Your task to perform on an android device: turn on improve location accuracy Image 0: 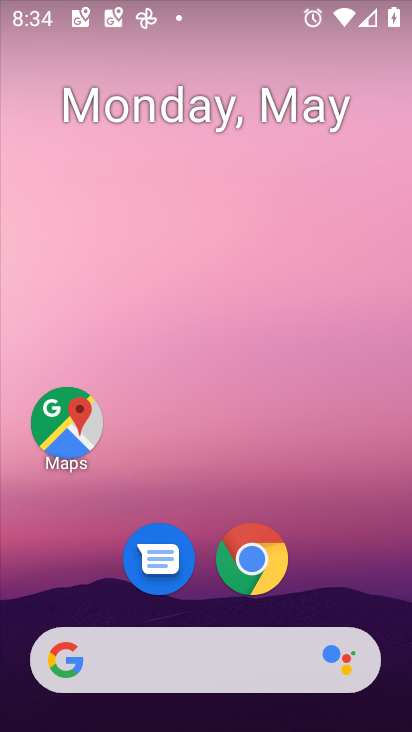
Step 0: drag from (367, 607) to (330, 90)
Your task to perform on an android device: turn on improve location accuracy Image 1: 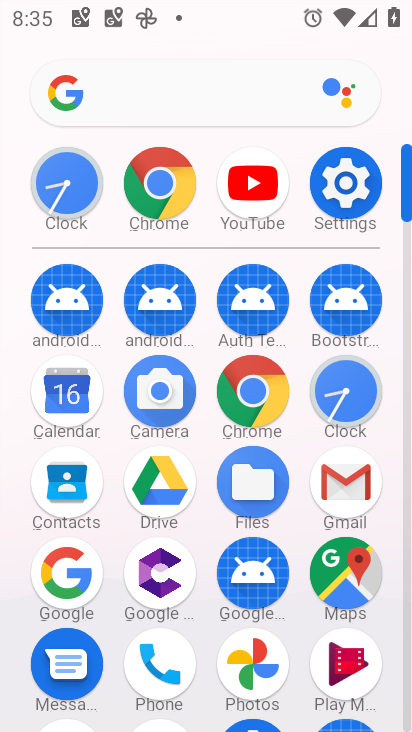
Step 1: click (345, 162)
Your task to perform on an android device: turn on improve location accuracy Image 2: 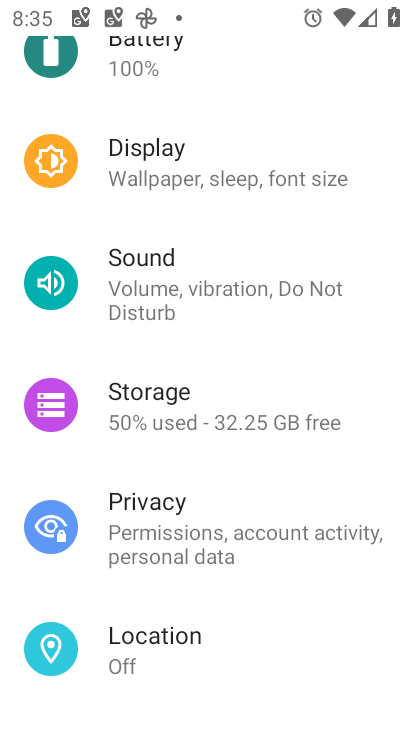
Step 2: click (174, 679)
Your task to perform on an android device: turn on improve location accuracy Image 3: 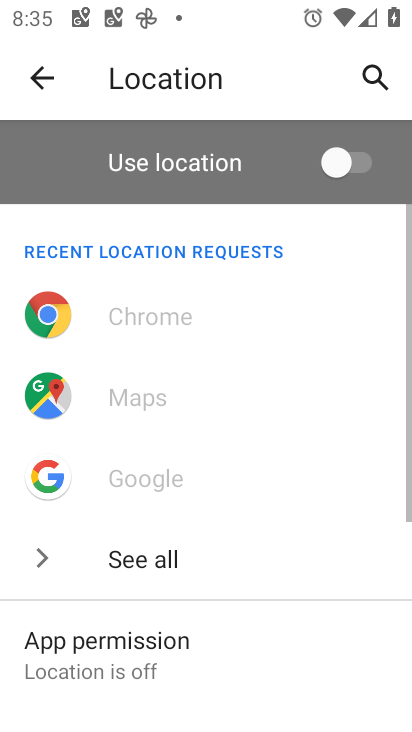
Step 3: drag from (188, 655) to (258, 291)
Your task to perform on an android device: turn on improve location accuracy Image 4: 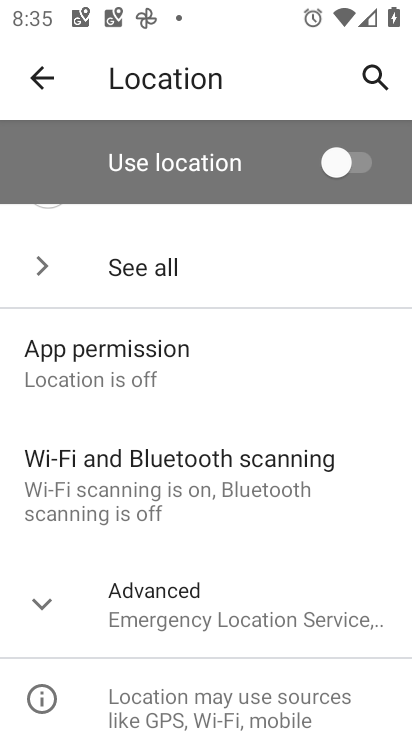
Step 4: click (178, 625)
Your task to perform on an android device: turn on improve location accuracy Image 5: 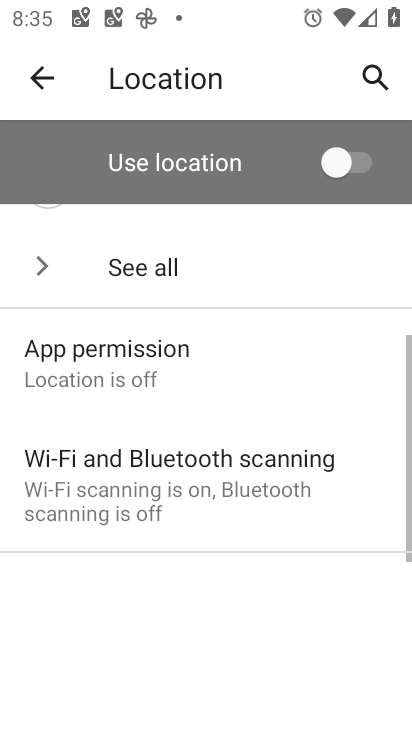
Step 5: drag from (178, 625) to (191, 378)
Your task to perform on an android device: turn on improve location accuracy Image 6: 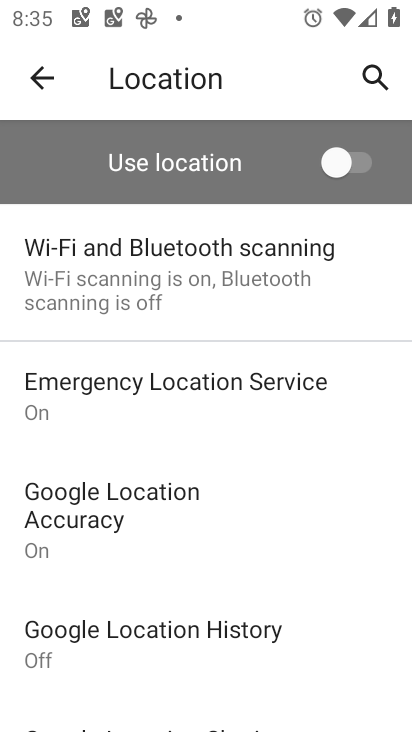
Step 6: click (91, 523)
Your task to perform on an android device: turn on improve location accuracy Image 7: 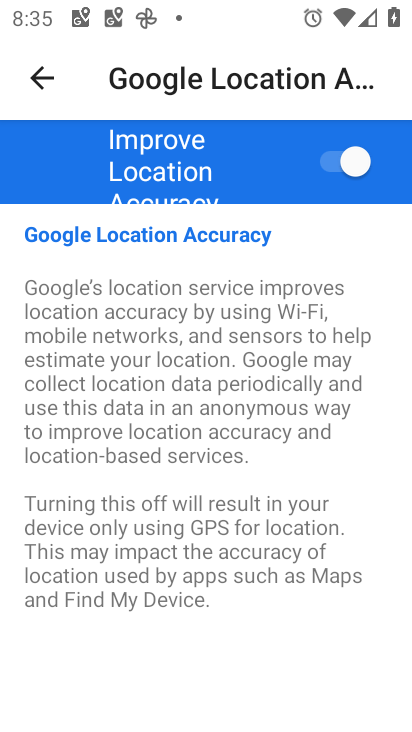
Step 7: task complete